Your task to perform on an android device: Show me the alarms in the clock app Image 0: 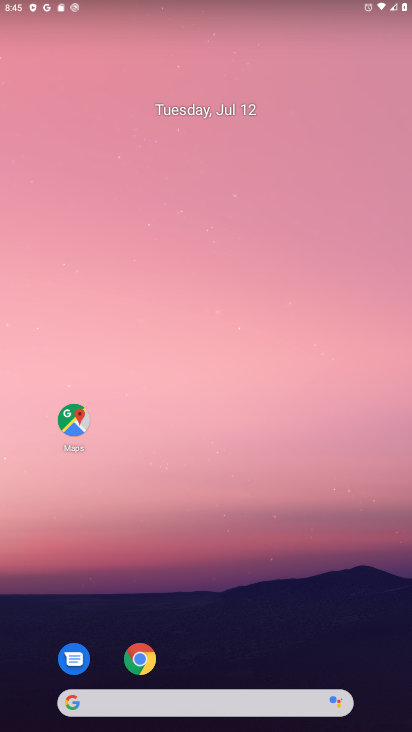
Step 0: drag from (245, 723) to (167, 165)
Your task to perform on an android device: Show me the alarms in the clock app Image 1: 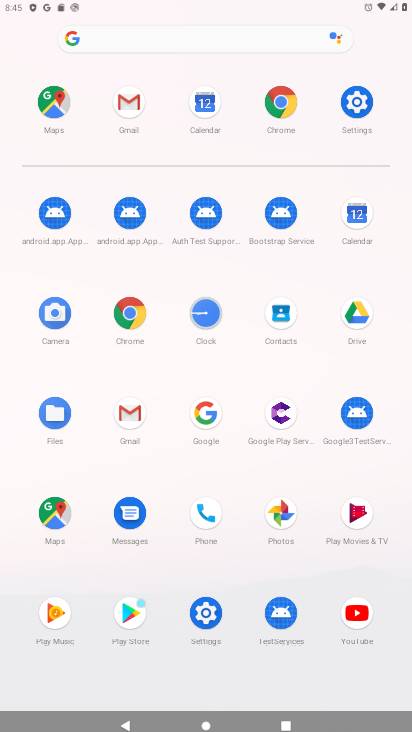
Step 1: click (211, 311)
Your task to perform on an android device: Show me the alarms in the clock app Image 2: 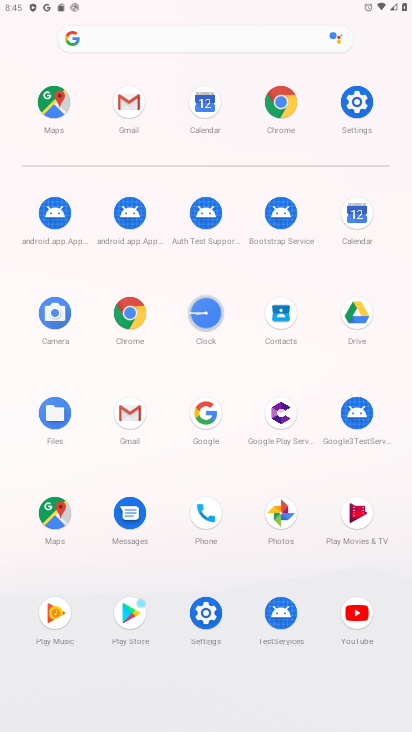
Step 2: click (211, 312)
Your task to perform on an android device: Show me the alarms in the clock app Image 3: 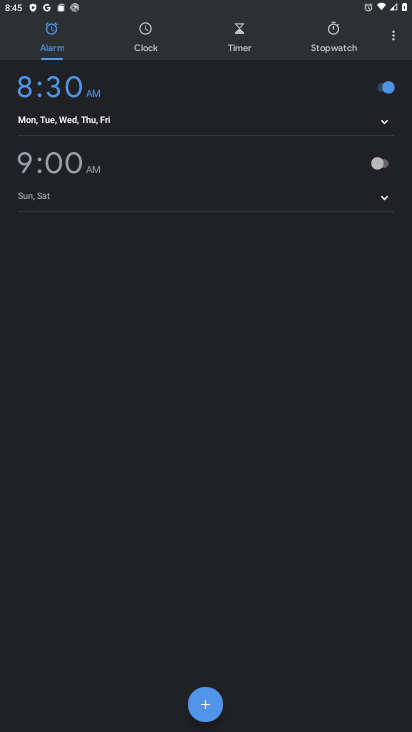
Step 3: click (61, 85)
Your task to perform on an android device: Show me the alarms in the clock app Image 4: 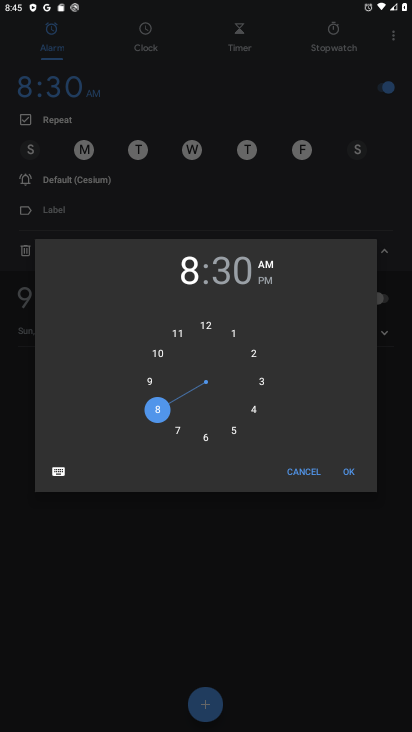
Step 4: task complete